Your task to perform on an android device: find snoozed emails in the gmail app Image 0: 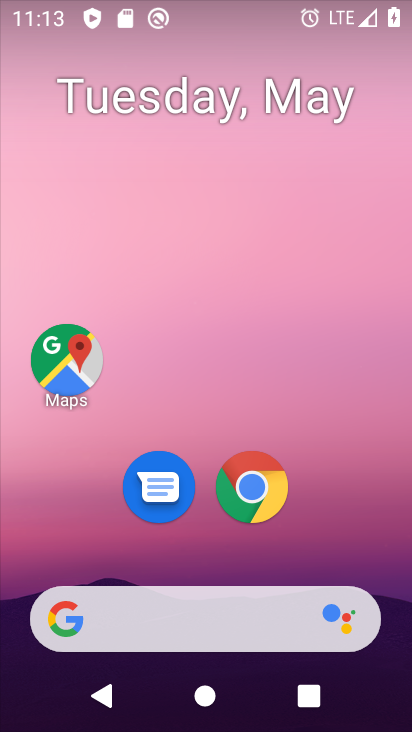
Step 0: drag from (198, 562) to (239, 160)
Your task to perform on an android device: find snoozed emails in the gmail app Image 1: 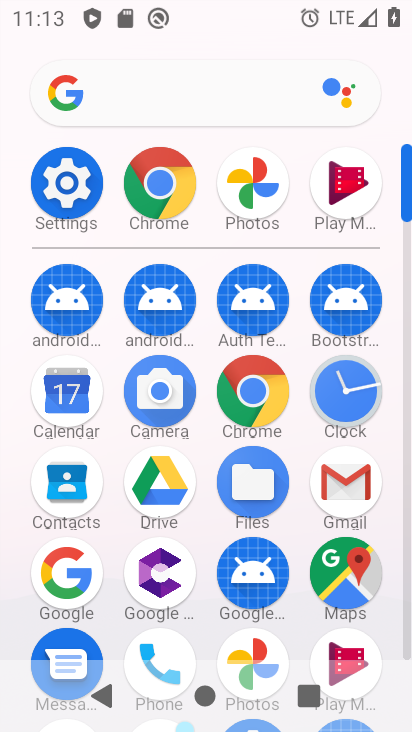
Step 1: click (354, 484)
Your task to perform on an android device: find snoozed emails in the gmail app Image 2: 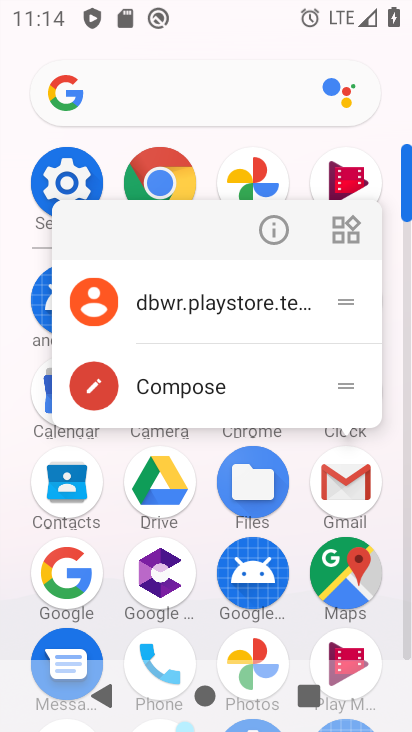
Step 2: click (200, 292)
Your task to perform on an android device: find snoozed emails in the gmail app Image 3: 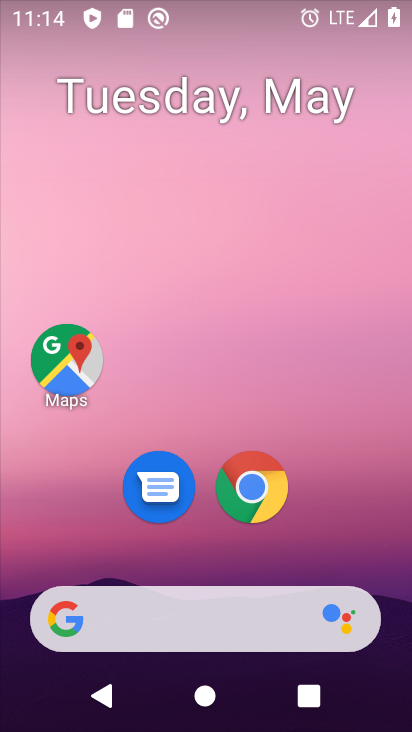
Step 3: drag from (186, 588) to (256, 97)
Your task to perform on an android device: find snoozed emails in the gmail app Image 4: 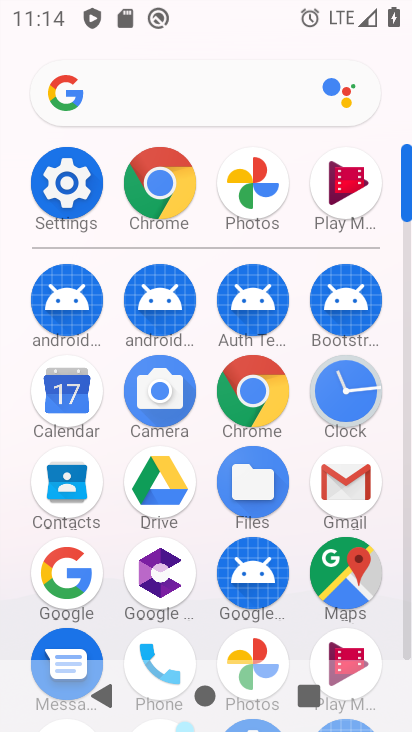
Step 4: click (332, 484)
Your task to perform on an android device: find snoozed emails in the gmail app Image 5: 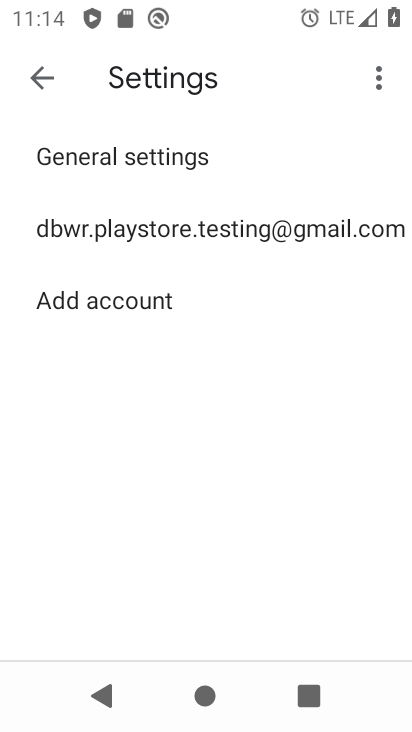
Step 5: click (31, 94)
Your task to perform on an android device: find snoozed emails in the gmail app Image 6: 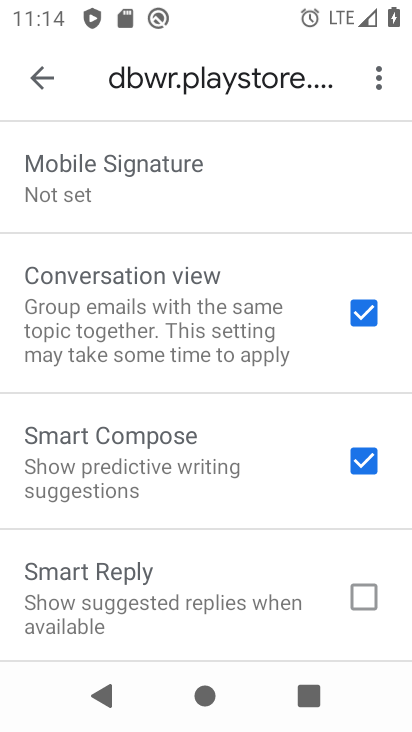
Step 6: drag from (204, 555) to (247, 169)
Your task to perform on an android device: find snoozed emails in the gmail app Image 7: 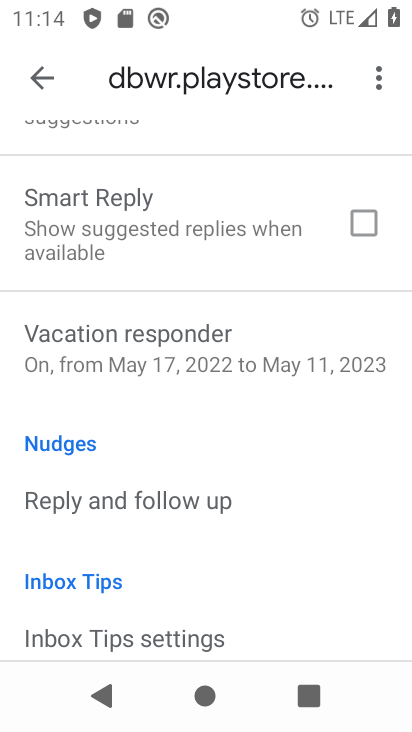
Step 7: click (13, 64)
Your task to perform on an android device: find snoozed emails in the gmail app Image 8: 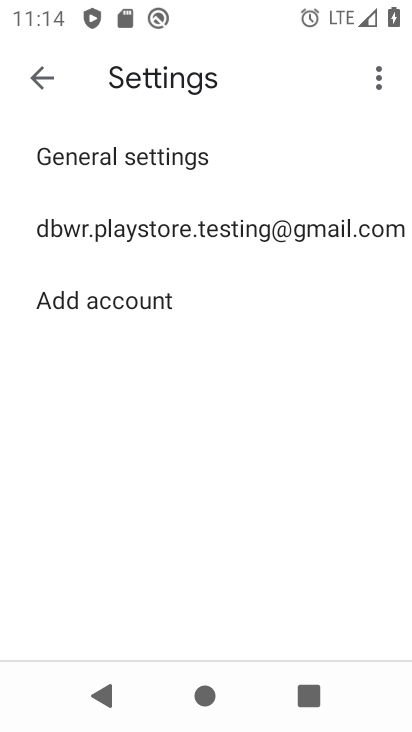
Step 8: click (27, 64)
Your task to perform on an android device: find snoozed emails in the gmail app Image 9: 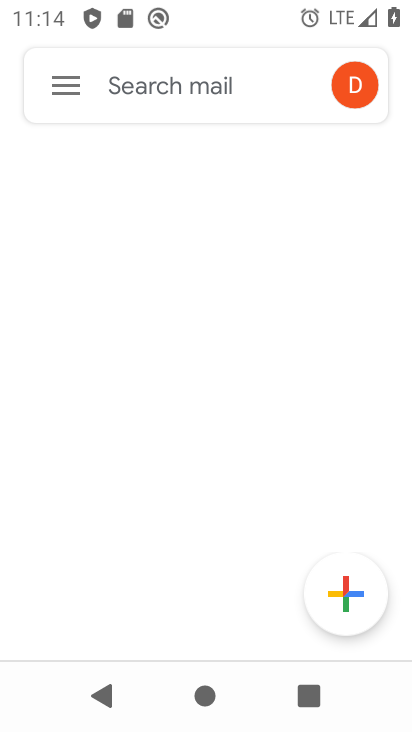
Step 9: click (60, 75)
Your task to perform on an android device: find snoozed emails in the gmail app Image 10: 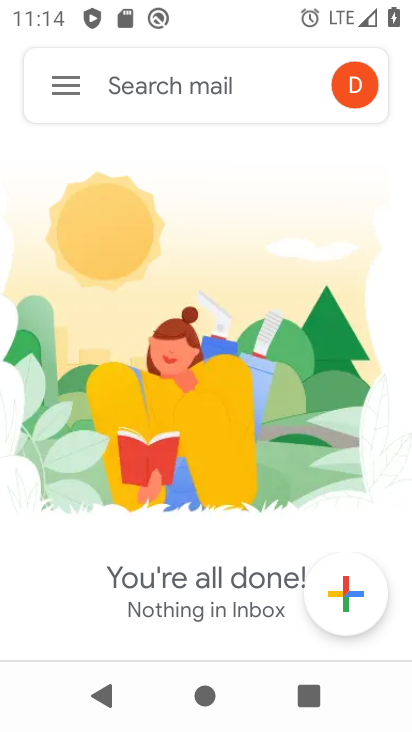
Step 10: click (65, 84)
Your task to perform on an android device: find snoozed emails in the gmail app Image 11: 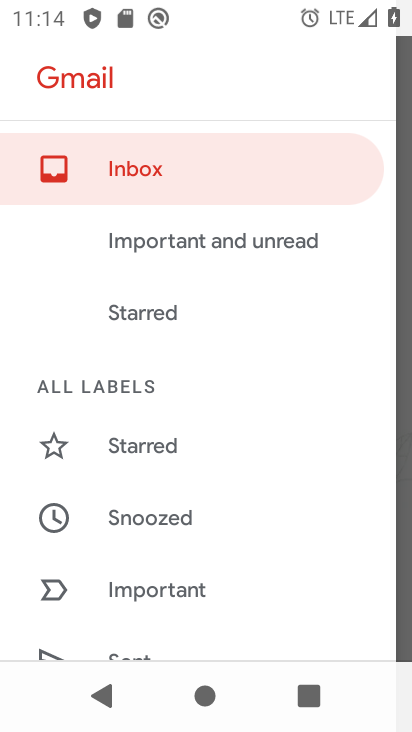
Step 11: click (185, 532)
Your task to perform on an android device: find snoozed emails in the gmail app Image 12: 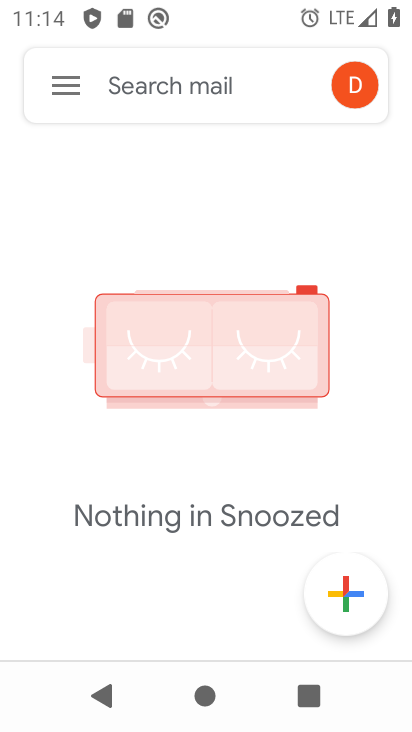
Step 12: task complete